Your task to perform on an android device: check storage Image 0: 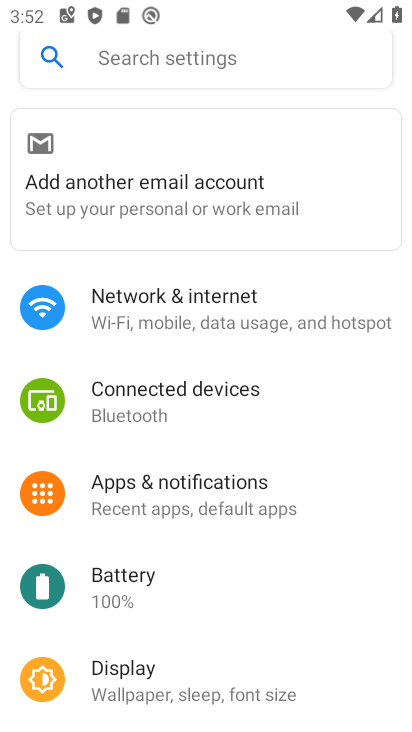
Step 0: drag from (313, 606) to (321, 353)
Your task to perform on an android device: check storage Image 1: 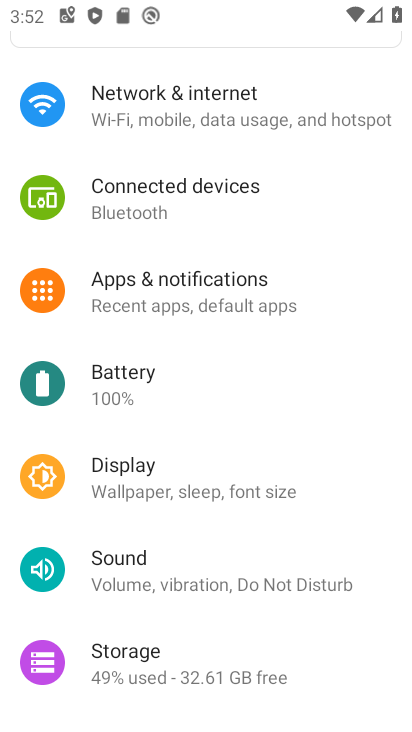
Step 1: drag from (198, 510) to (202, 258)
Your task to perform on an android device: check storage Image 2: 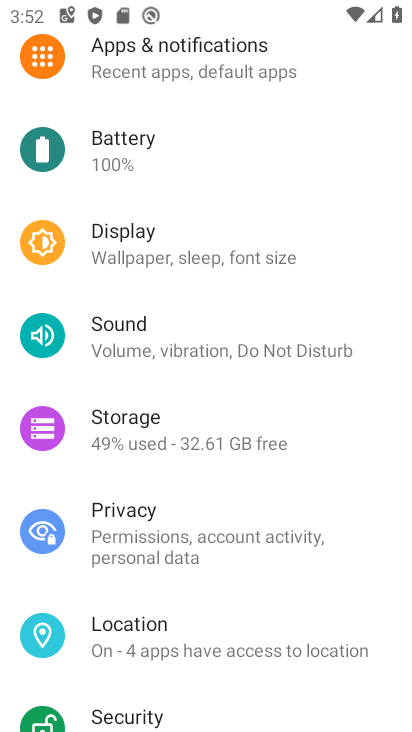
Step 2: click (199, 441)
Your task to perform on an android device: check storage Image 3: 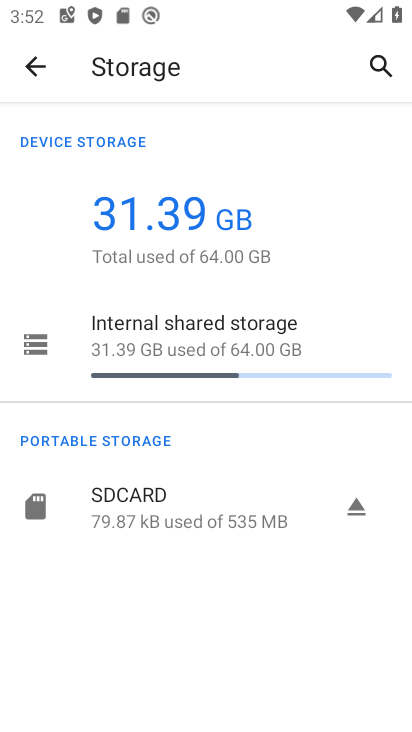
Step 3: task complete